Your task to perform on an android device: check data usage Image 0: 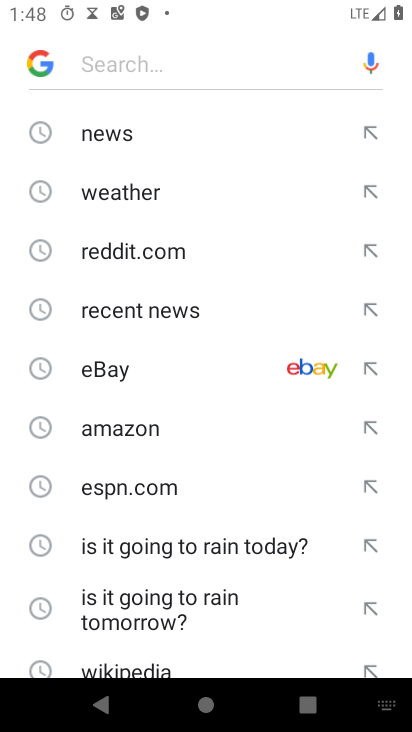
Step 0: press home button
Your task to perform on an android device: check data usage Image 1: 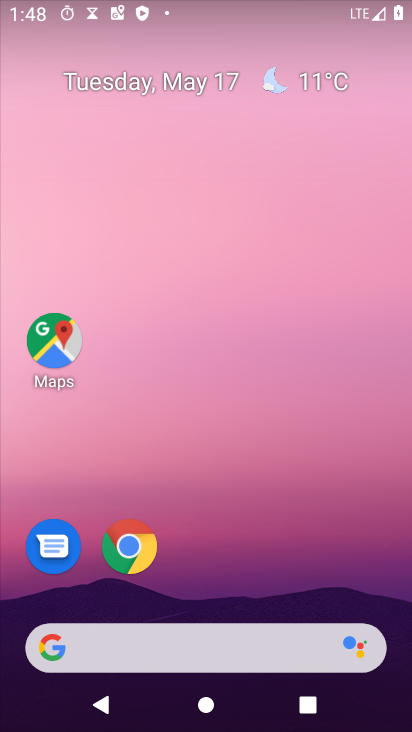
Step 1: drag from (153, 640) to (309, 124)
Your task to perform on an android device: check data usage Image 2: 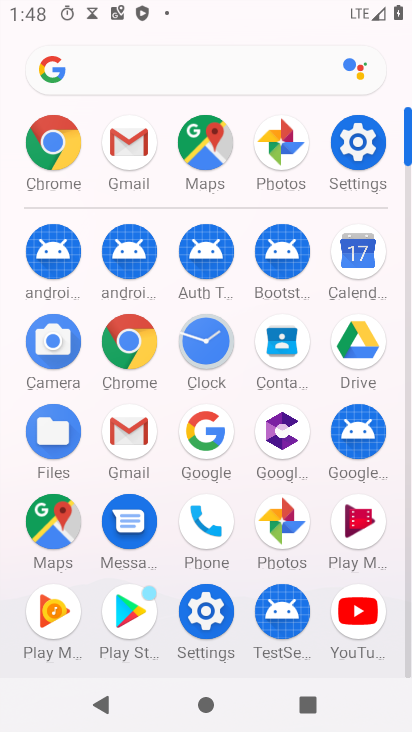
Step 2: click (358, 140)
Your task to perform on an android device: check data usage Image 3: 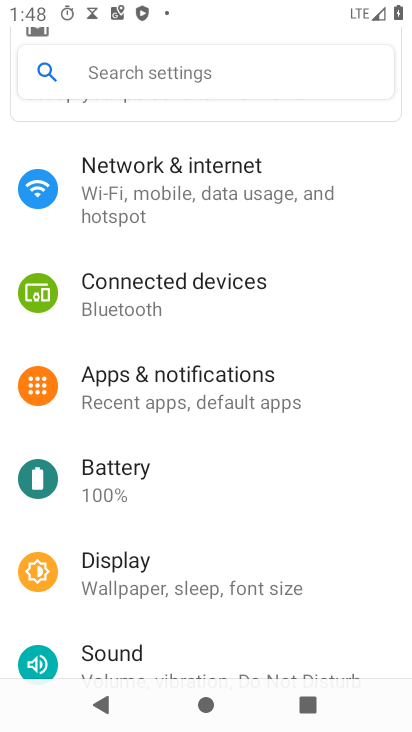
Step 3: click (221, 186)
Your task to perform on an android device: check data usage Image 4: 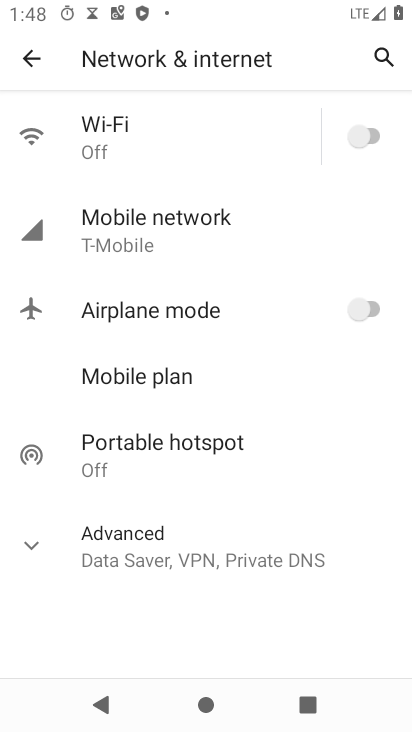
Step 4: click (142, 144)
Your task to perform on an android device: check data usage Image 5: 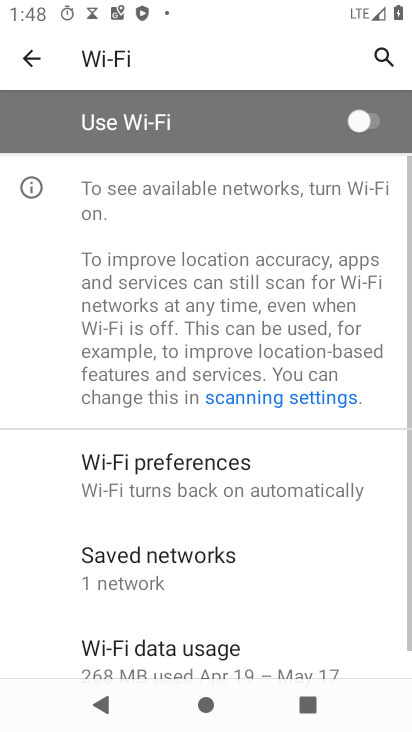
Step 5: click (165, 661)
Your task to perform on an android device: check data usage Image 6: 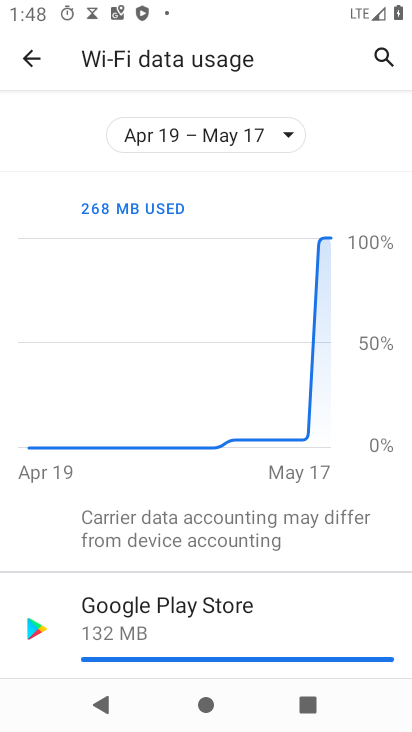
Step 6: task complete